Your task to perform on an android device: change the clock display to analog Image 0: 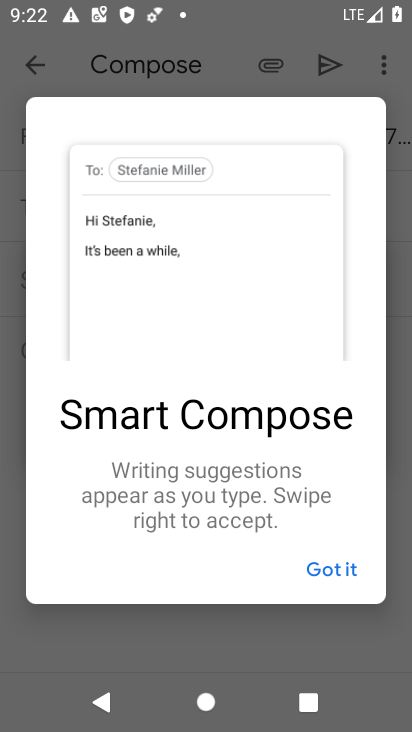
Step 0: press home button
Your task to perform on an android device: change the clock display to analog Image 1: 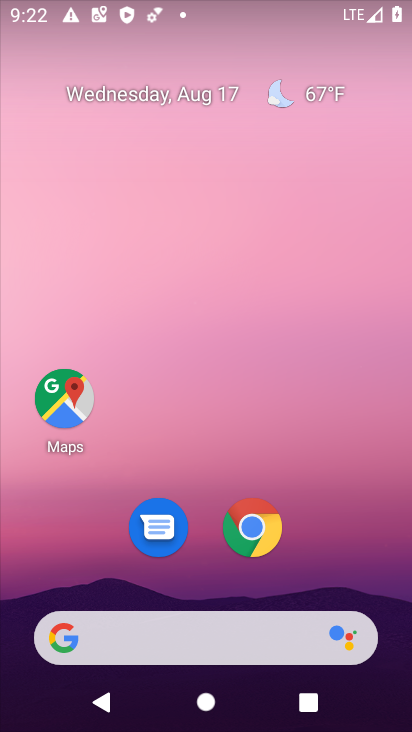
Step 1: drag from (198, 580) to (186, 34)
Your task to perform on an android device: change the clock display to analog Image 2: 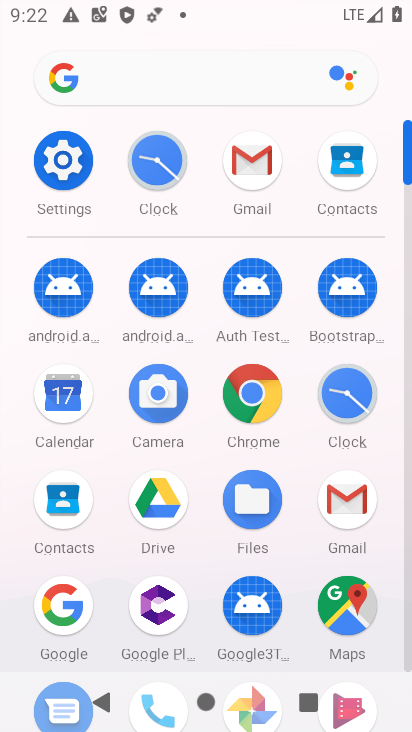
Step 2: click (346, 398)
Your task to perform on an android device: change the clock display to analog Image 3: 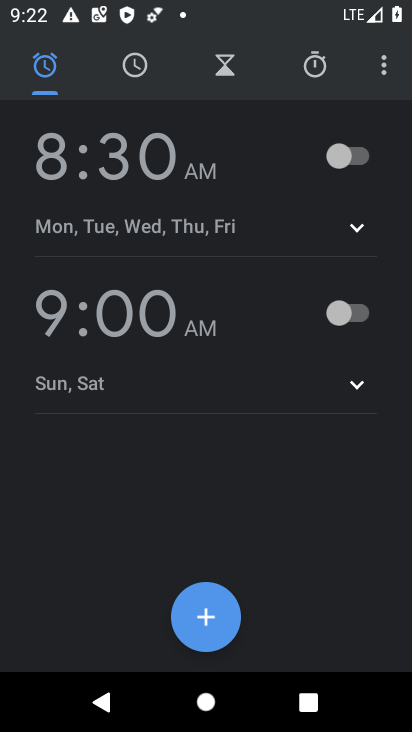
Step 3: click (389, 69)
Your task to perform on an android device: change the clock display to analog Image 4: 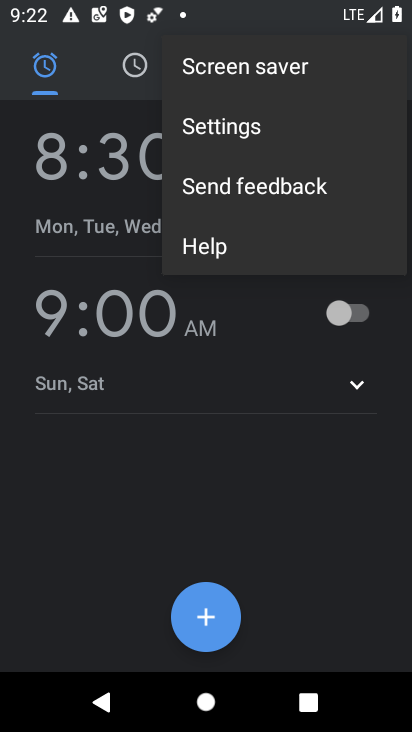
Step 4: click (264, 129)
Your task to perform on an android device: change the clock display to analog Image 5: 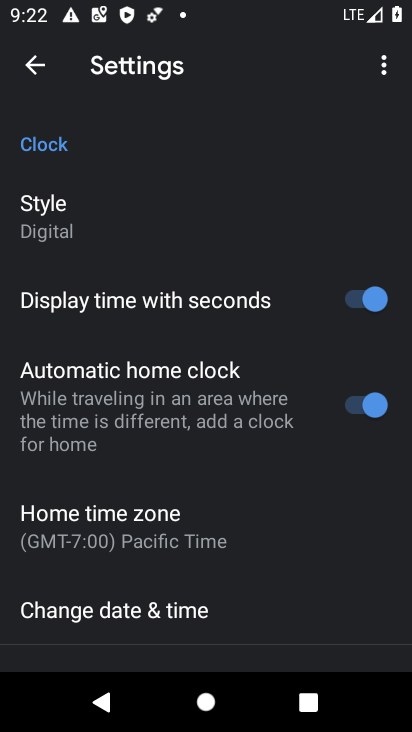
Step 5: click (116, 215)
Your task to perform on an android device: change the clock display to analog Image 6: 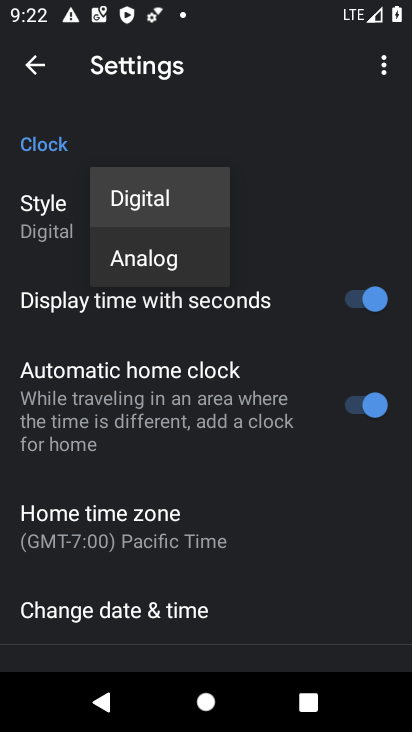
Step 6: click (168, 257)
Your task to perform on an android device: change the clock display to analog Image 7: 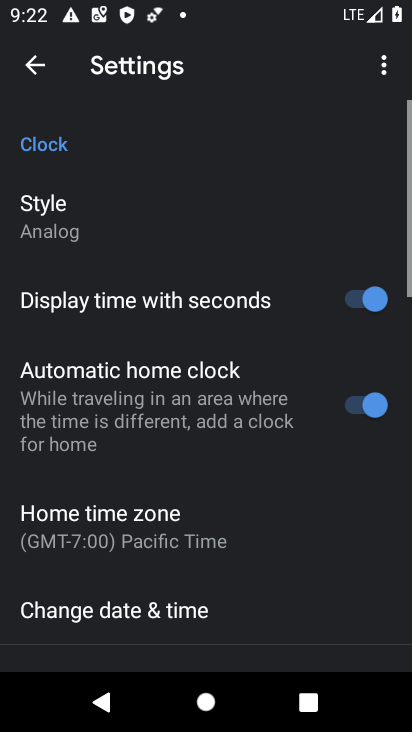
Step 7: task complete